Your task to perform on an android device: Search for seafood restaurants on Google Maps Image 0: 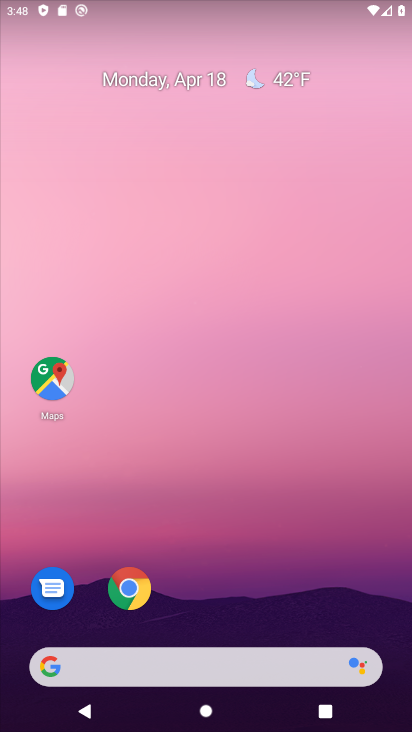
Step 0: click (50, 394)
Your task to perform on an android device: Search for seafood restaurants on Google Maps Image 1: 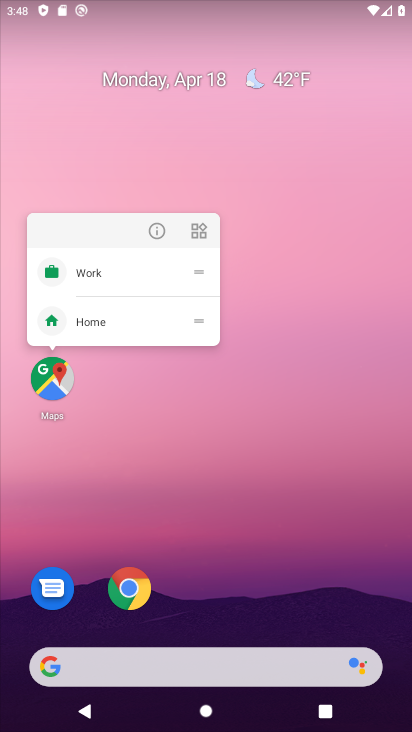
Step 1: click (60, 377)
Your task to perform on an android device: Search for seafood restaurants on Google Maps Image 2: 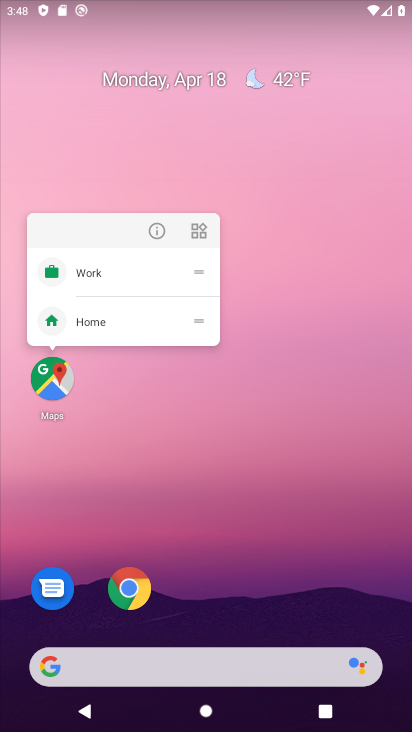
Step 2: click (52, 381)
Your task to perform on an android device: Search for seafood restaurants on Google Maps Image 3: 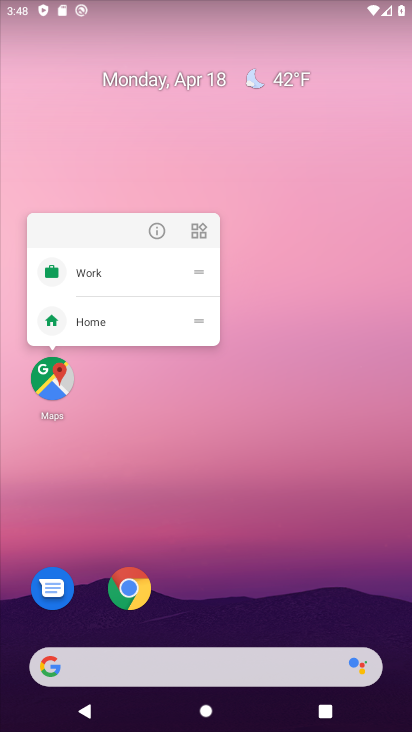
Step 3: click (51, 390)
Your task to perform on an android device: Search for seafood restaurants on Google Maps Image 4: 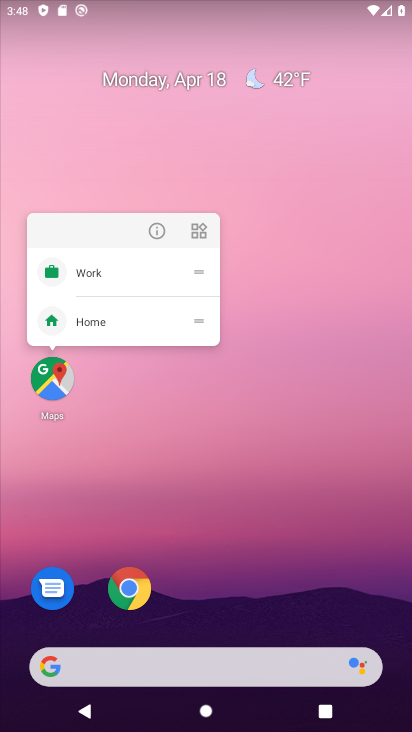
Step 4: click (51, 391)
Your task to perform on an android device: Search for seafood restaurants on Google Maps Image 5: 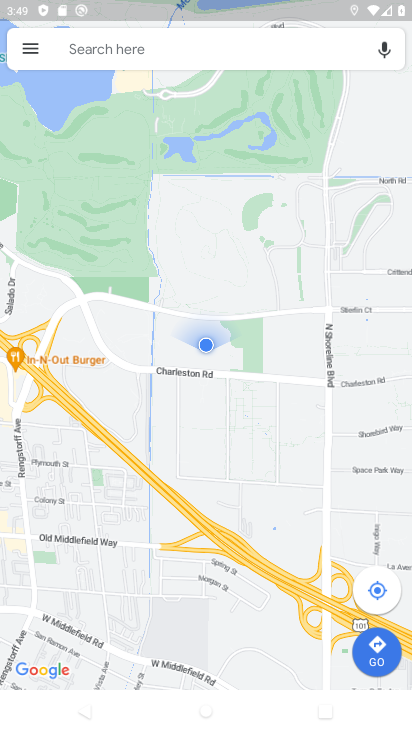
Step 5: click (174, 45)
Your task to perform on an android device: Search for seafood restaurants on Google Maps Image 6: 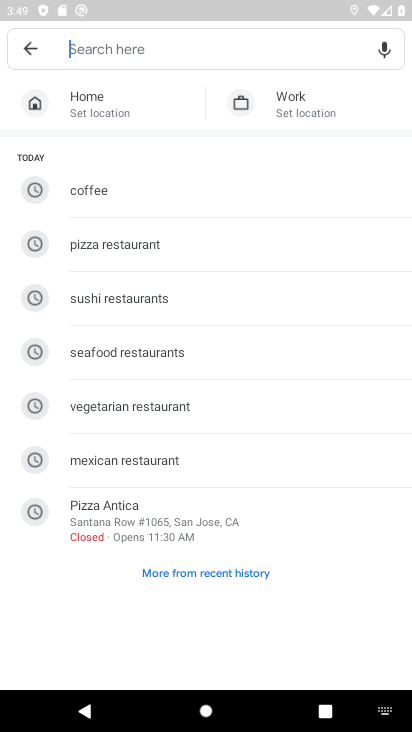
Step 6: click (130, 359)
Your task to perform on an android device: Search for seafood restaurants on Google Maps Image 7: 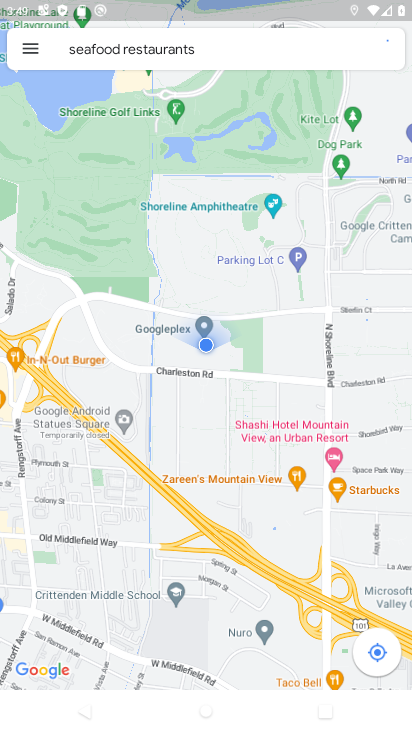
Step 7: task complete